Your task to perform on an android device: Open the calendar and show me this week's events Image 0: 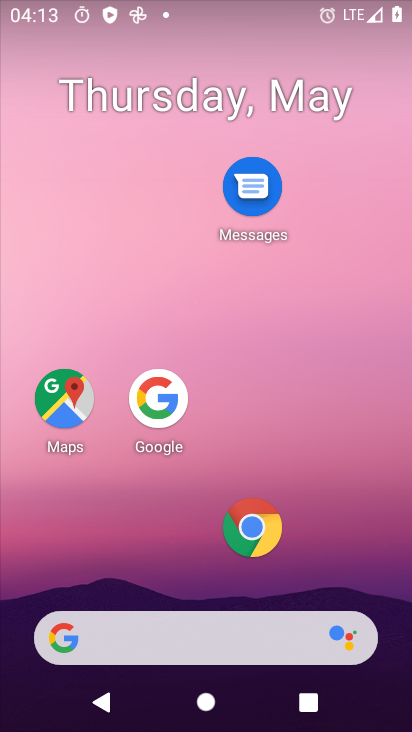
Step 0: drag from (178, 582) to (205, 58)
Your task to perform on an android device: Open the calendar and show me this week's events Image 1: 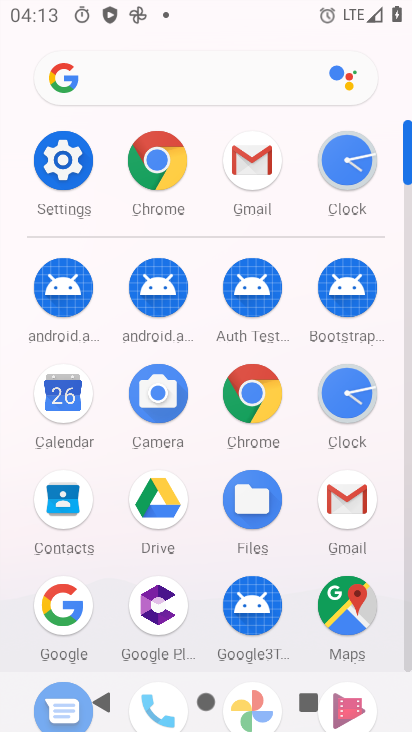
Step 1: click (42, 391)
Your task to perform on an android device: Open the calendar and show me this week's events Image 2: 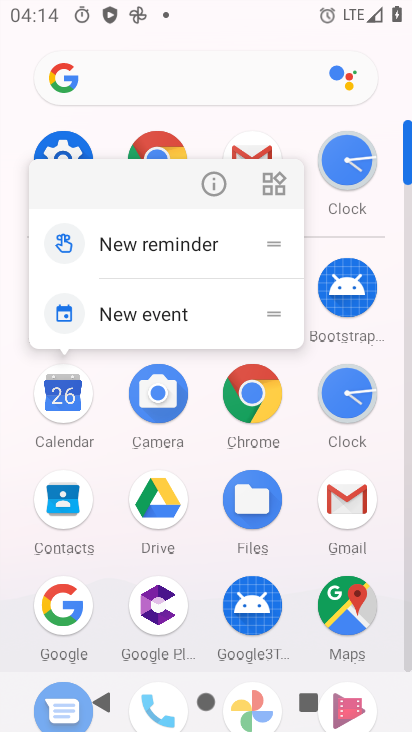
Step 2: click (202, 189)
Your task to perform on an android device: Open the calendar and show me this week's events Image 3: 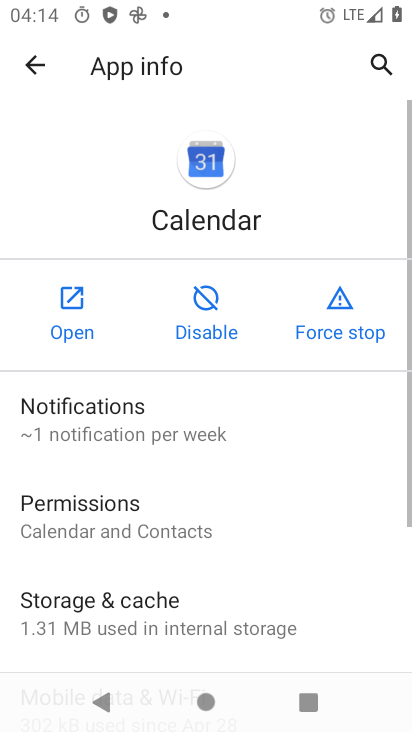
Step 3: click (86, 337)
Your task to perform on an android device: Open the calendar and show me this week's events Image 4: 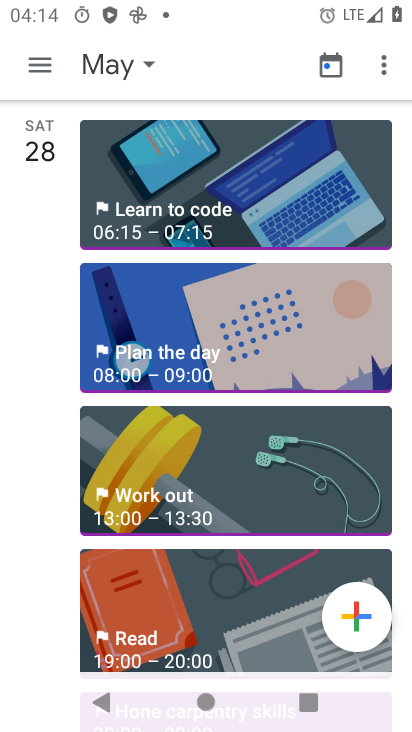
Step 4: click (129, 63)
Your task to perform on an android device: Open the calendar and show me this week's events Image 5: 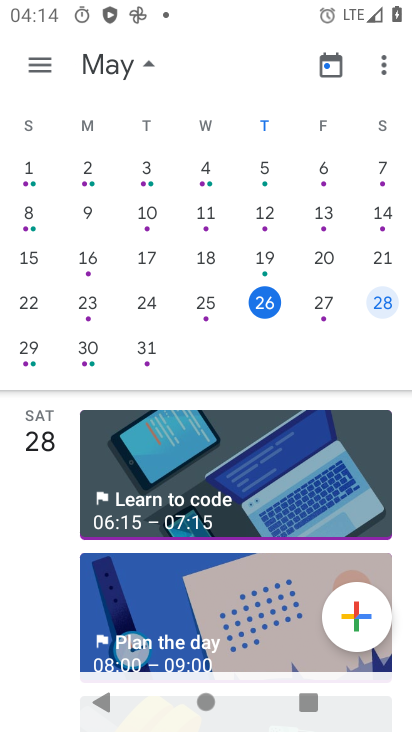
Step 5: click (325, 304)
Your task to perform on an android device: Open the calendar and show me this week's events Image 6: 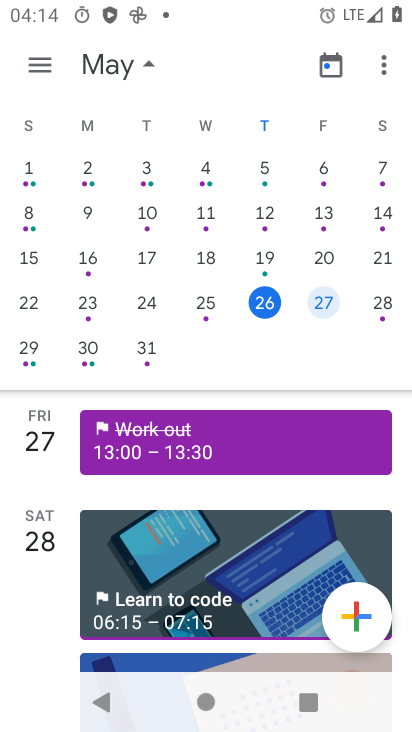
Step 6: task complete